Your task to perform on an android device: Search for sushi restaurants on Maps Image 0: 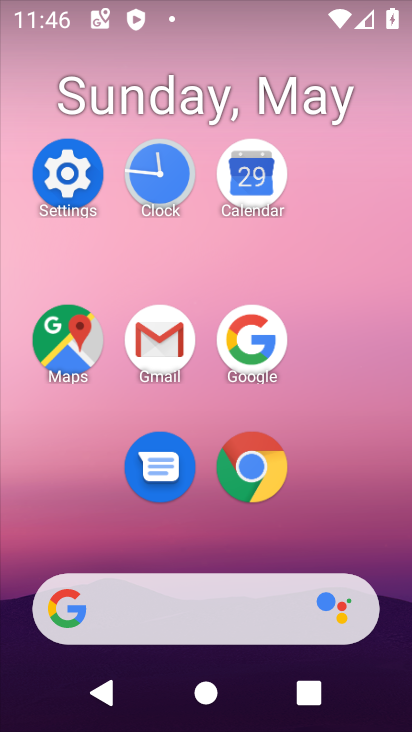
Step 0: click (261, 166)
Your task to perform on an android device: Search for sushi restaurants on Maps Image 1: 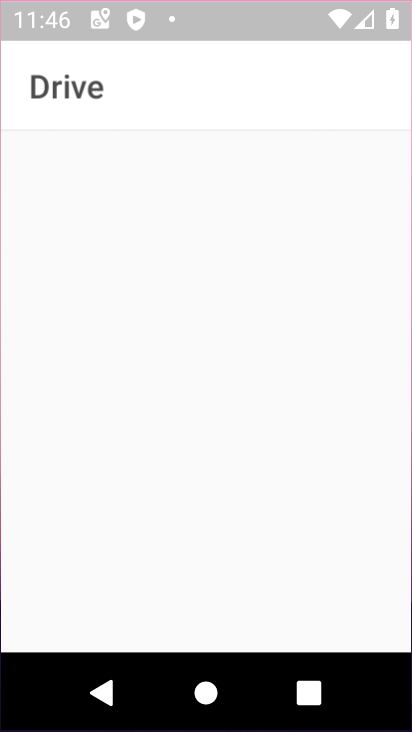
Step 1: press home button
Your task to perform on an android device: Search for sushi restaurants on Maps Image 2: 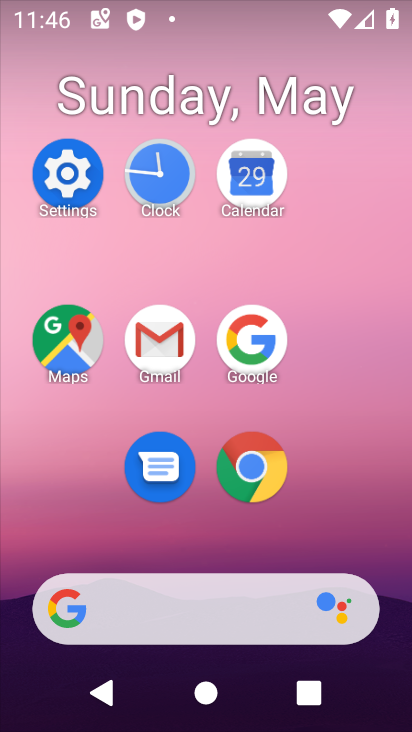
Step 2: click (46, 332)
Your task to perform on an android device: Search for sushi restaurants on Maps Image 3: 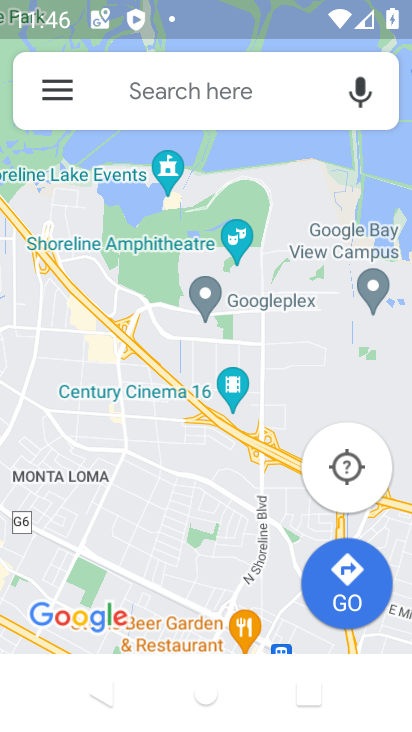
Step 3: click (211, 115)
Your task to perform on an android device: Search for sushi restaurants on Maps Image 4: 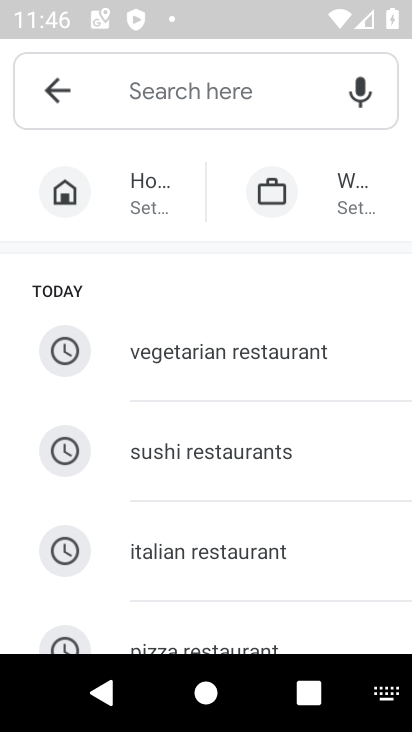
Step 4: click (290, 451)
Your task to perform on an android device: Search for sushi restaurants on Maps Image 5: 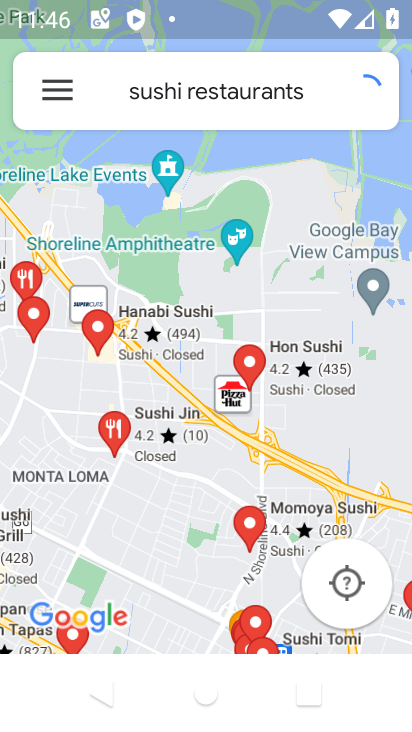
Step 5: task complete